Your task to perform on an android device: create a new album in the google photos Image 0: 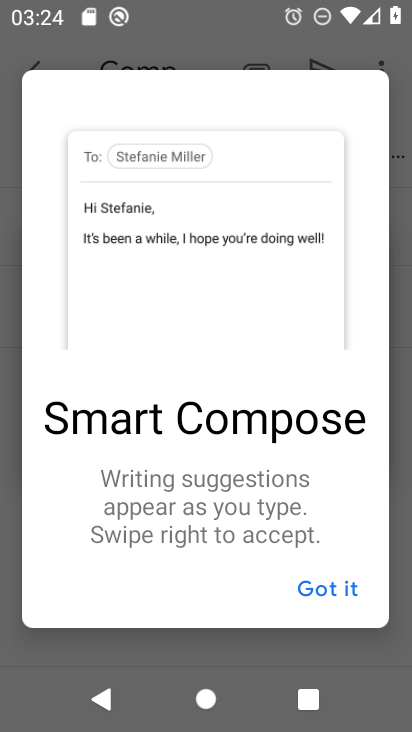
Step 0: press home button
Your task to perform on an android device: create a new album in the google photos Image 1: 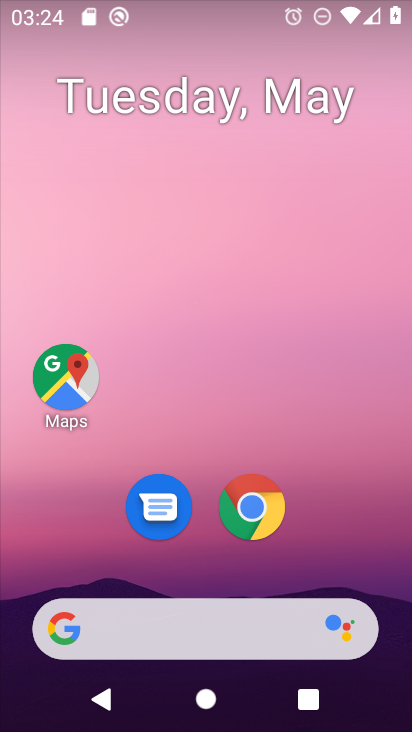
Step 1: drag from (200, 543) to (247, 159)
Your task to perform on an android device: create a new album in the google photos Image 2: 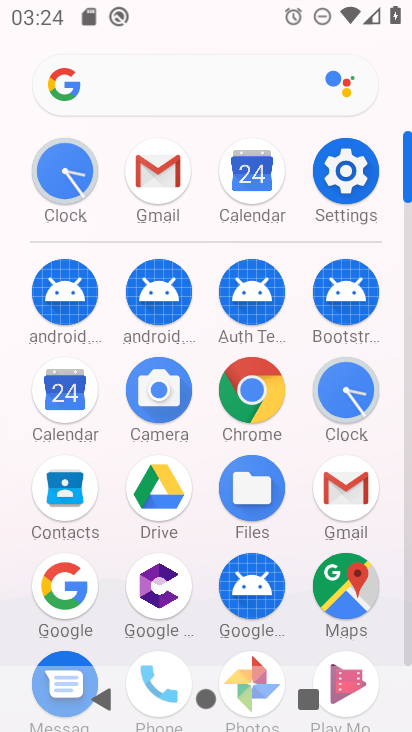
Step 2: drag from (197, 622) to (235, 348)
Your task to perform on an android device: create a new album in the google photos Image 3: 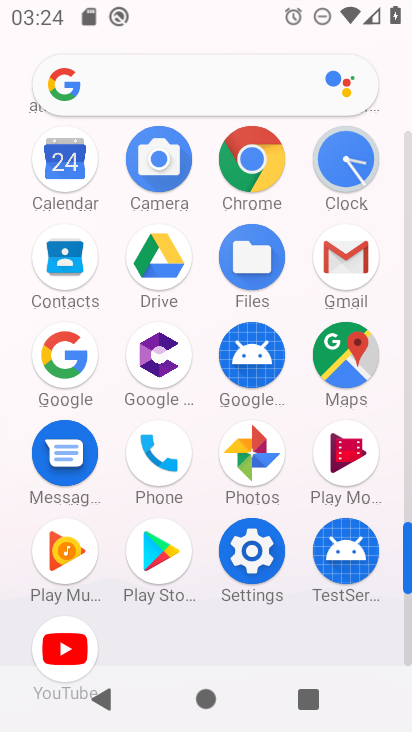
Step 3: click (248, 490)
Your task to perform on an android device: create a new album in the google photos Image 4: 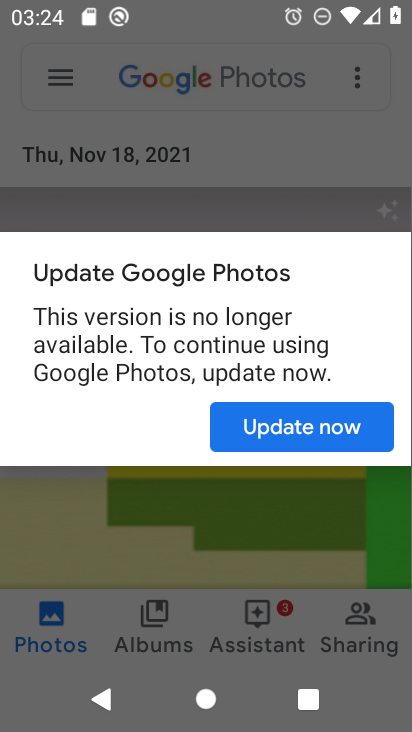
Step 4: click (269, 440)
Your task to perform on an android device: create a new album in the google photos Image 5: 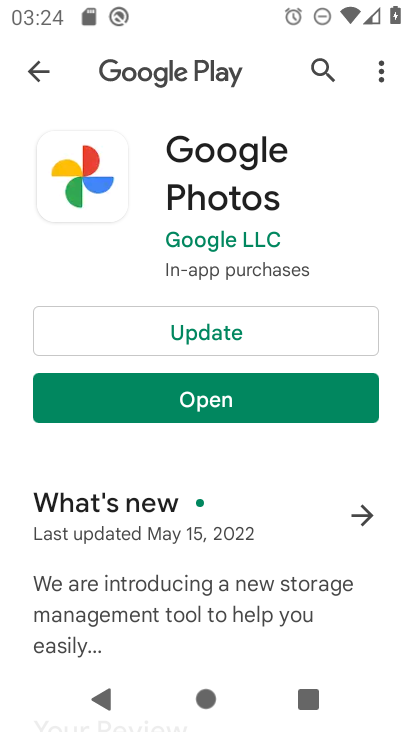
Step 5: click (262, 403)
Your task to perform on an android device: create a new album in the google photos Image 6: 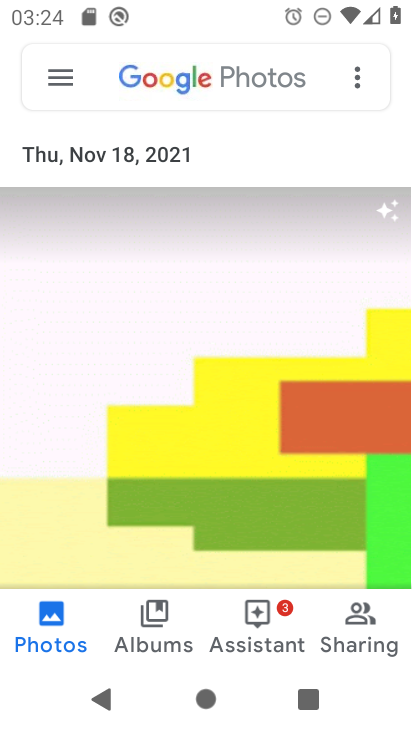
Step 6: click (360, 78)
Your task to perform on an android device: create a new album in the google photos Image 7: 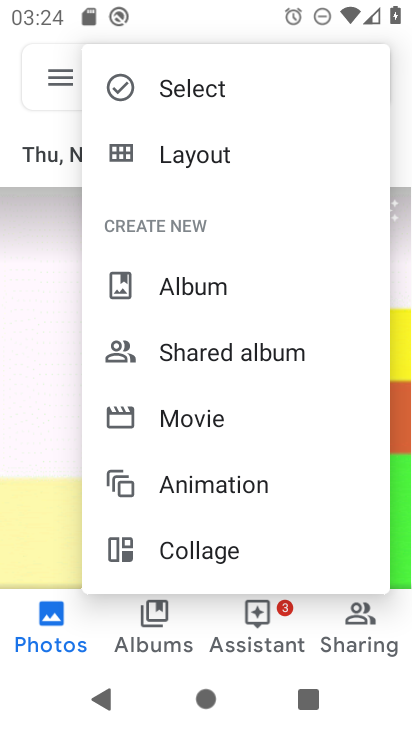
Step 7: click (176, 275)
Your task to perform on an android device: create a new album in the google photos Image 8: 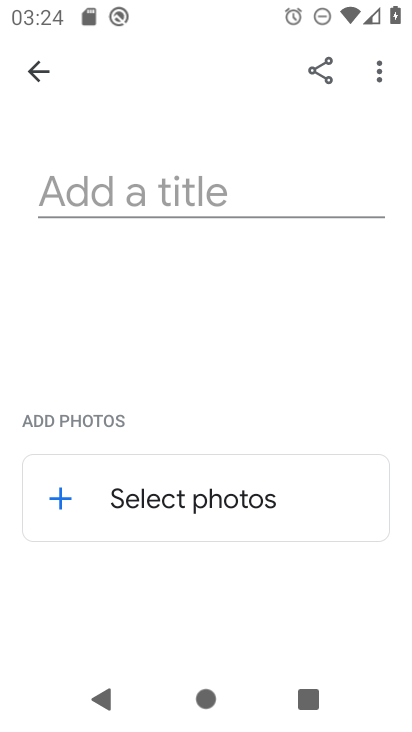
Step 8: click (212, 184)
Your task to perform on an android device: create a new album in the google photos Image 9: 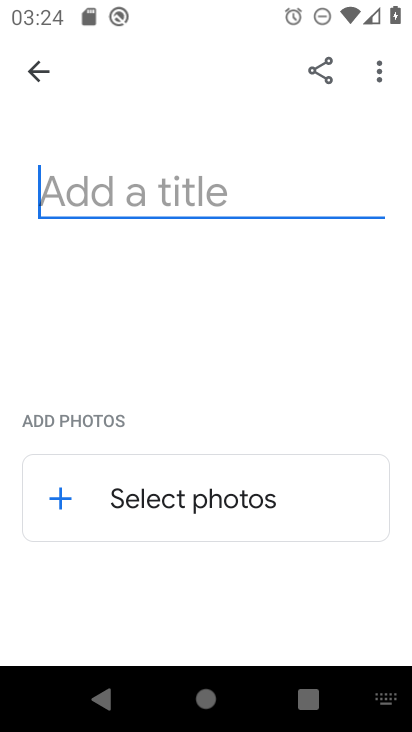
Step 9: type "dbdfb"
Your task to perform on an android device: create a new album in the google photos Image 10: 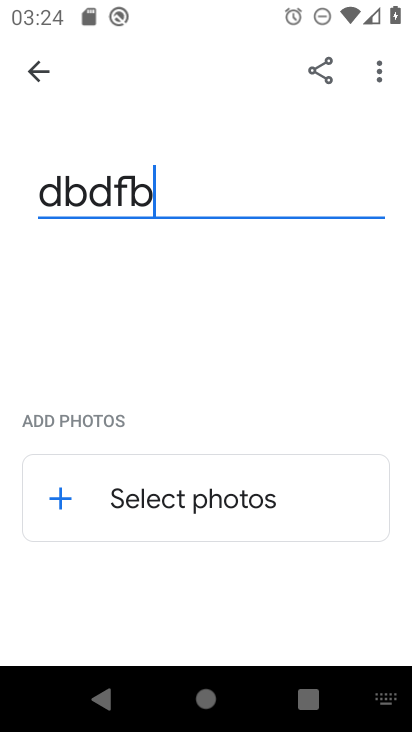
Step 10: click (57, 498)
Your task to perform on an android device: create a new album in the google photos Image 11: 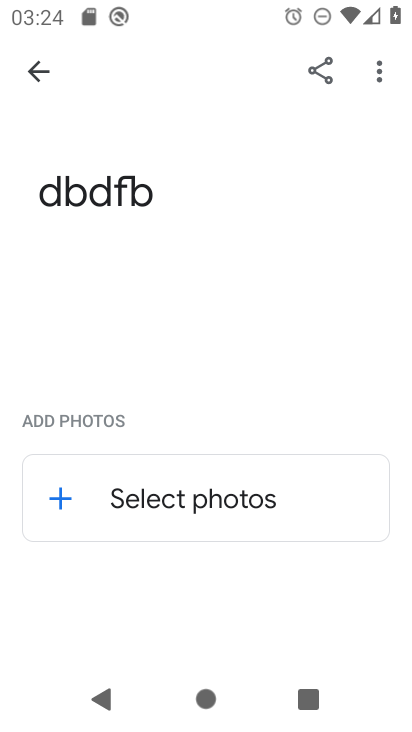
Step 11: click (57, 498)
Your task to perform on an android device: create a new album in the google photos Image 12: 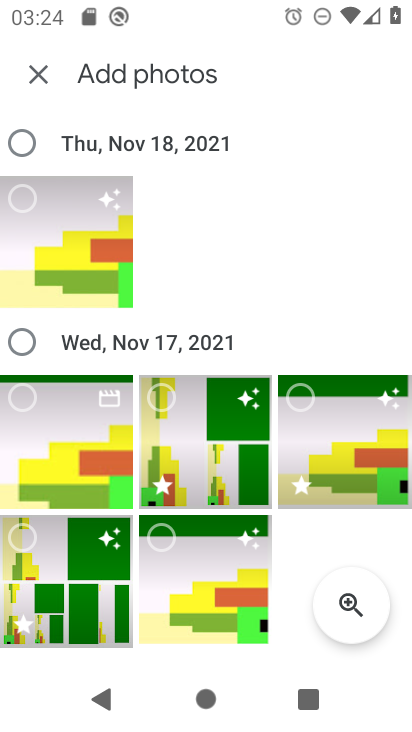
Step 12: click (172, 446)
Your task to perform on an android device: create a new album in the google photos Image 13: 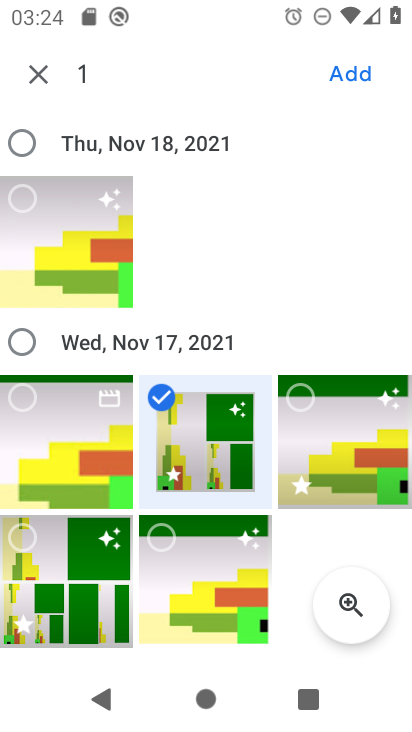
Step 13: click (346, 80)
Your task to perform on an android device: create a new album in the google photos Image 14: 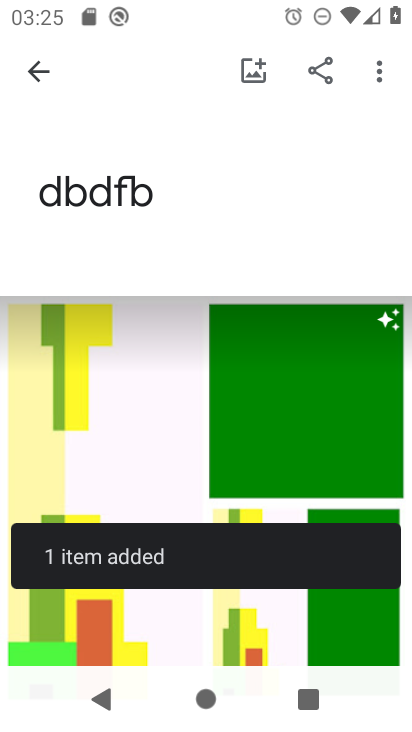
Step 14: task complete